Your task to perform on an android device: Open the map Image 0: 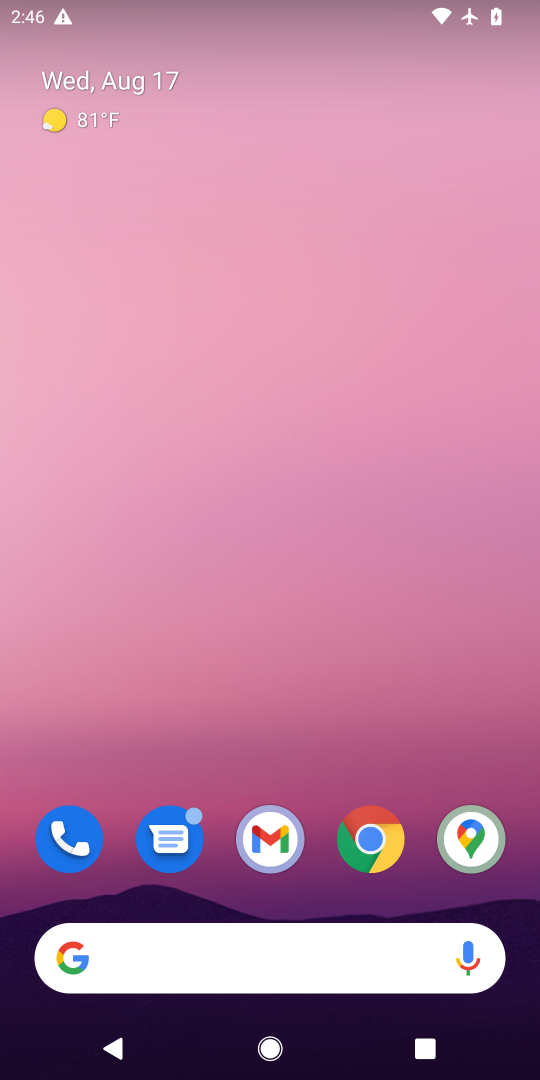
Step 0: click (473, 835)
Your task to perform on an android device: Open the map Image 1: 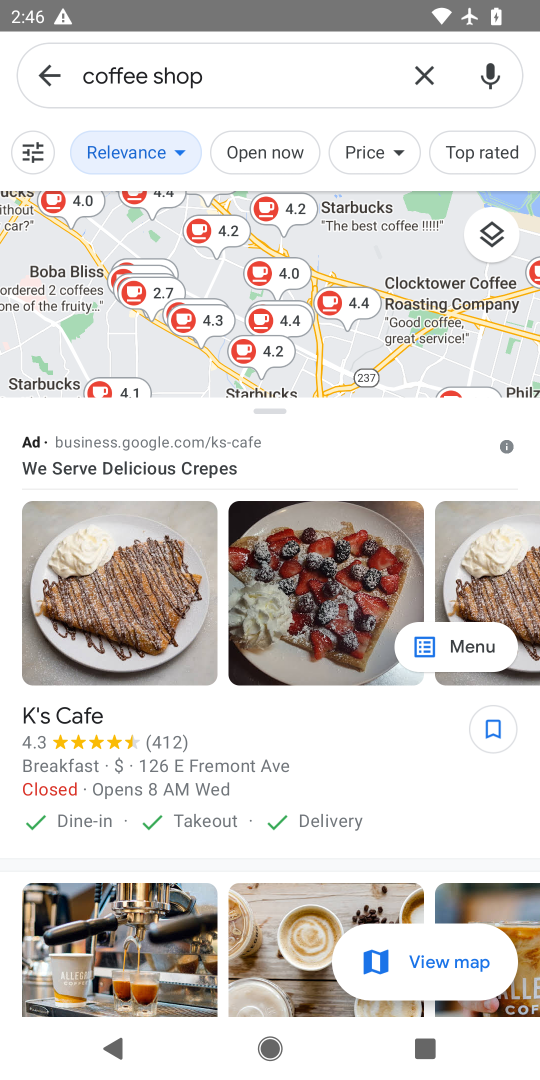
Step 1: task complete